Your task to perform on an android device: Go to Amazon Image 0: 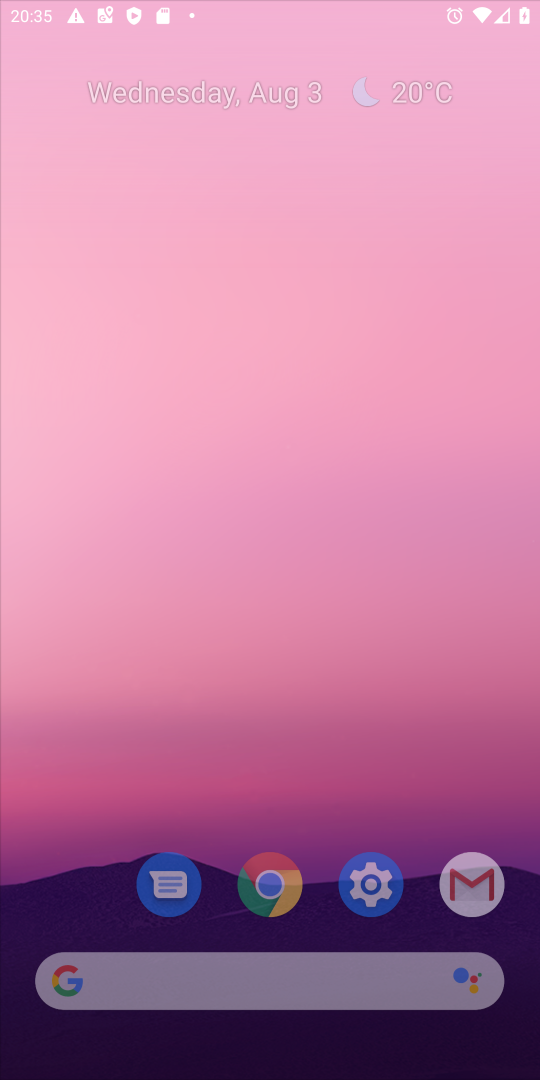
Step 0: press home button
Your task to perform on an android device: Go to Amazon Image 1: 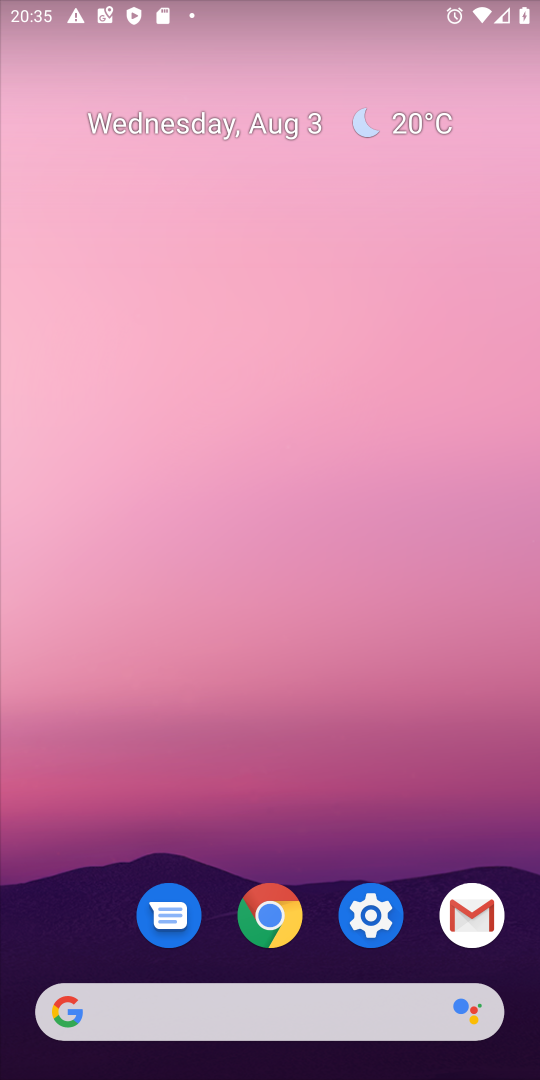
Step 1: drag from (357, 967) to (315, 305)
Your task to perform on an android device: Go to Amazon Image 2: 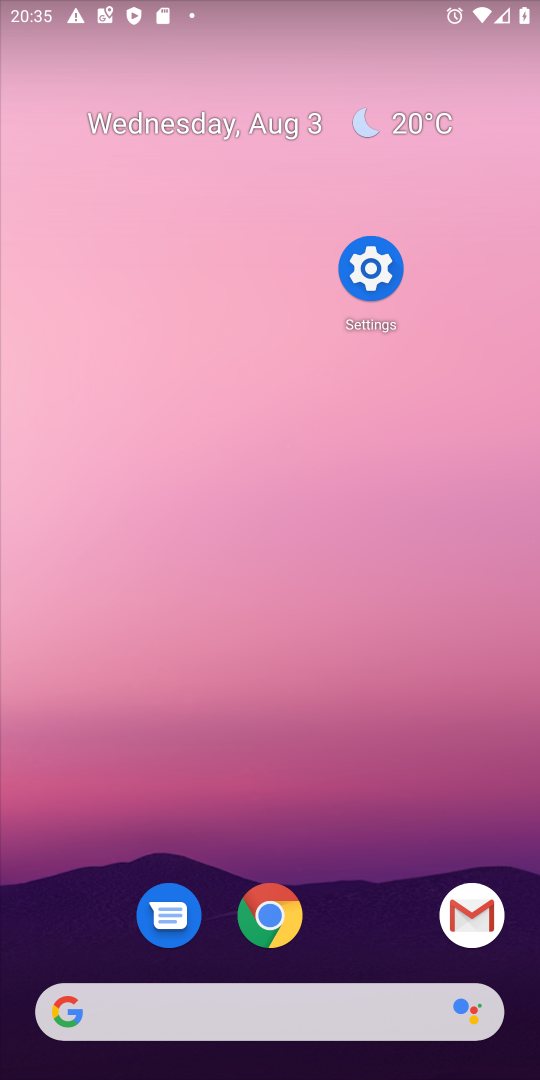
Step 2: drag from (258, 1040) to (108, 86)
Your task to perform on an android device: Go to Amazon Image 3: 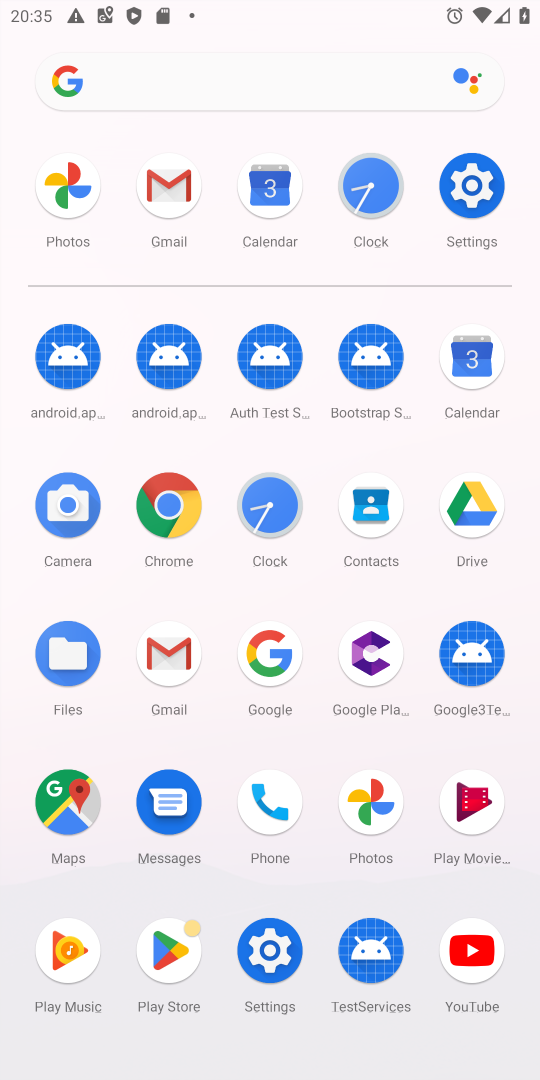
Step 3: click (180, 506)
Your task to perform on an android device: Go to Amazon Image 4: 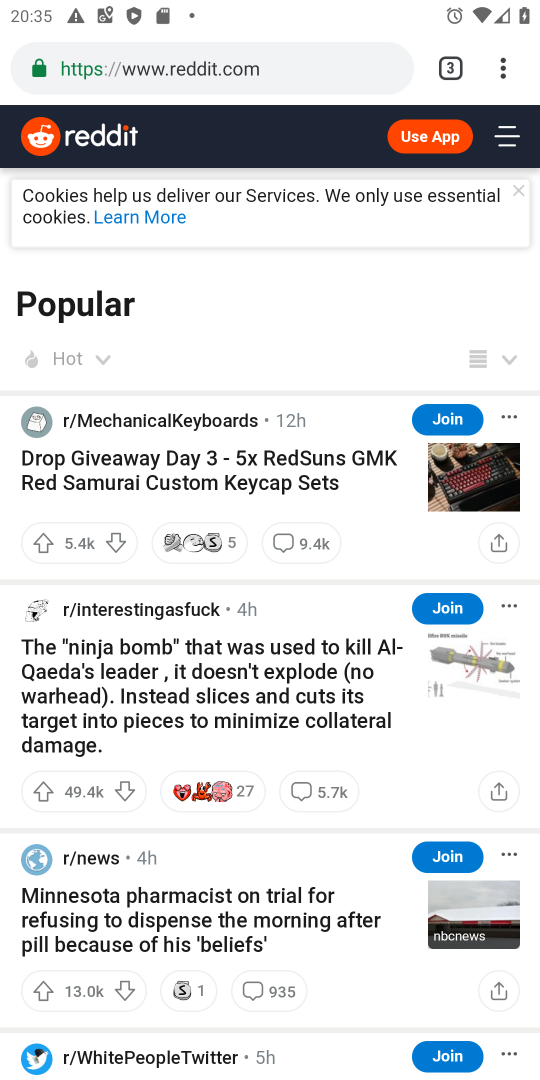
Step 4: click (458, 62)
Your task to perform on an android device: Go to Amazon Image 5: 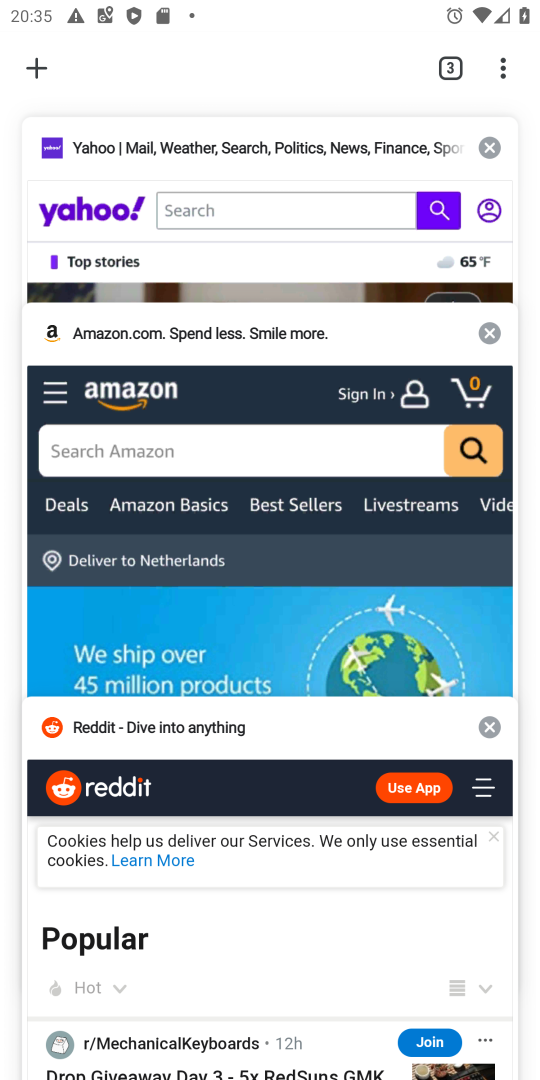
Step 5: click (42, 72)
Your task to perform on an android device: Go to Amazon Image 6: 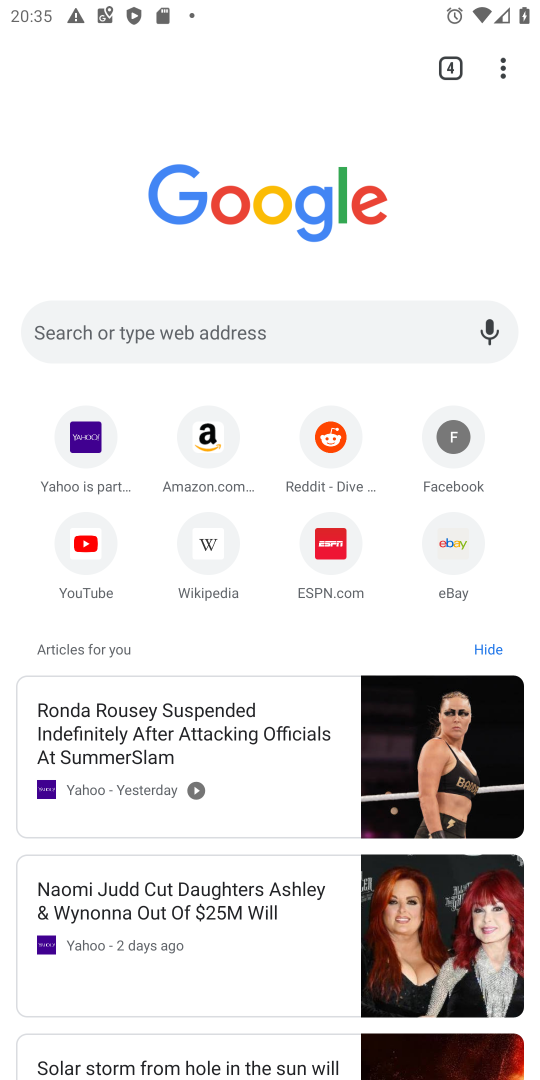
Step 6: click (209, 441)
Your task to perform on an android device: Go to Amazon Image 7: 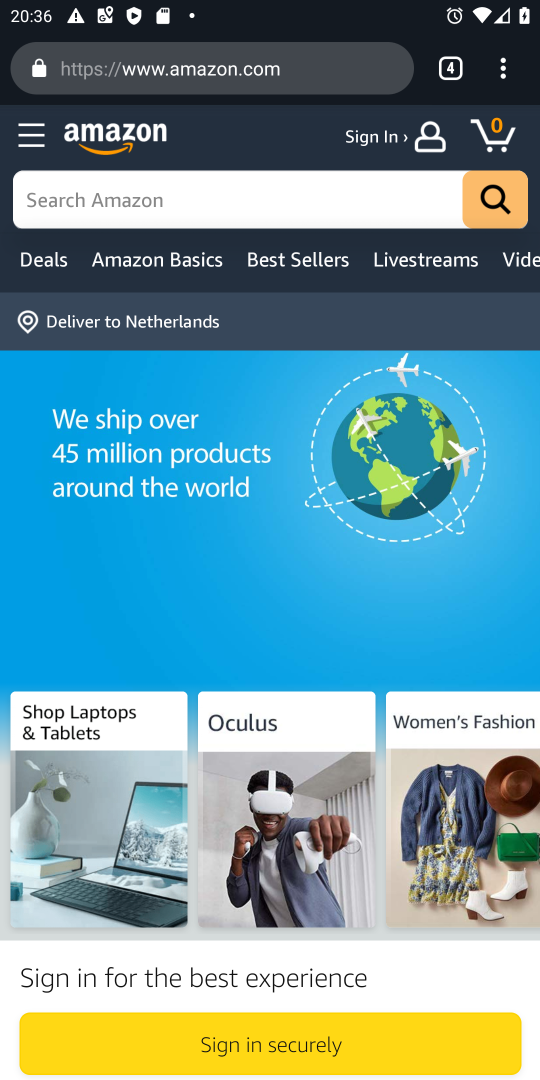
Step 7: task complete